Your task to perform on an android device: Open maps Image 0: 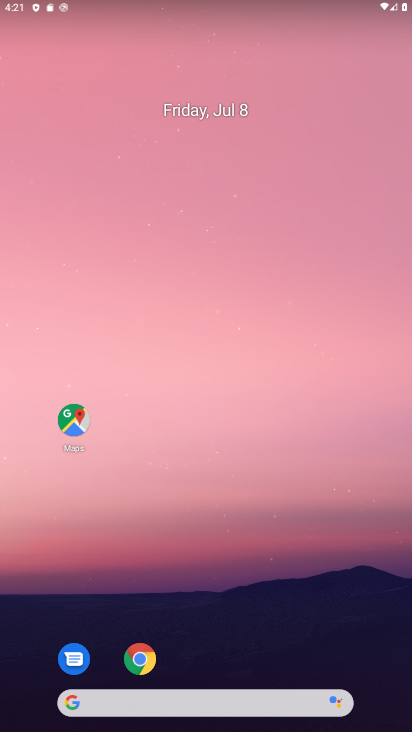
Step 0: drag from (297, 524) to (272, 83)
Your task to perform on an android device: Open maps Image 1: 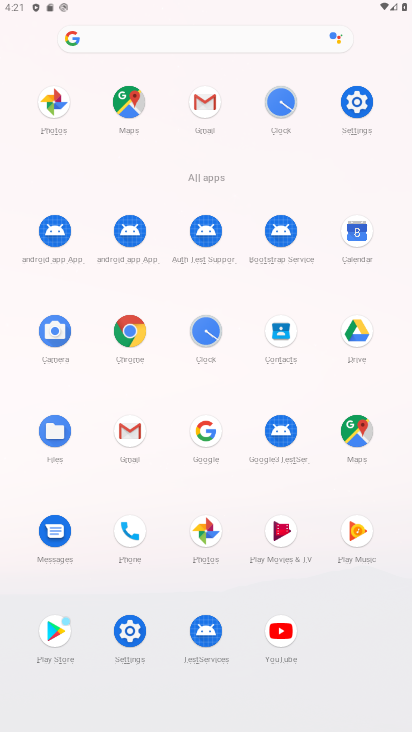
Step 1: click (359, 432)
Your task to perform on an android device: Open maps Image 2: 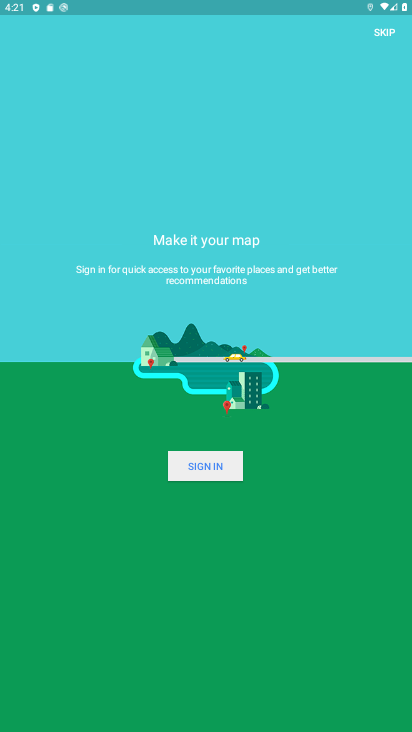
Step 2: click (384, 31)
Your task to perform on an android device: Open maps Image 3: 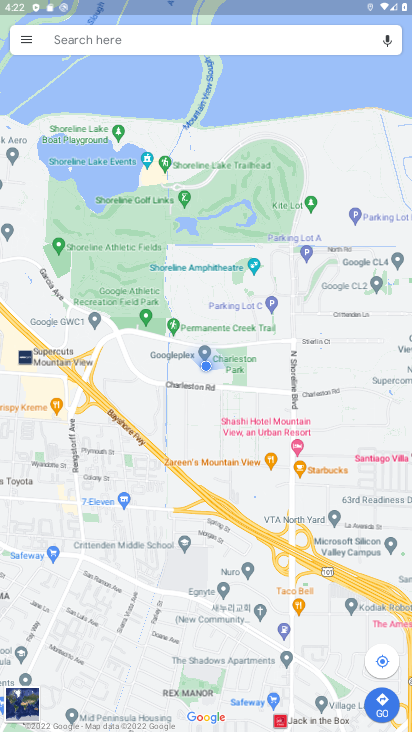
Step 3: task complete